Your task to perform on an android device: uninstall "eBay: The shopping marketplace" Image 0: 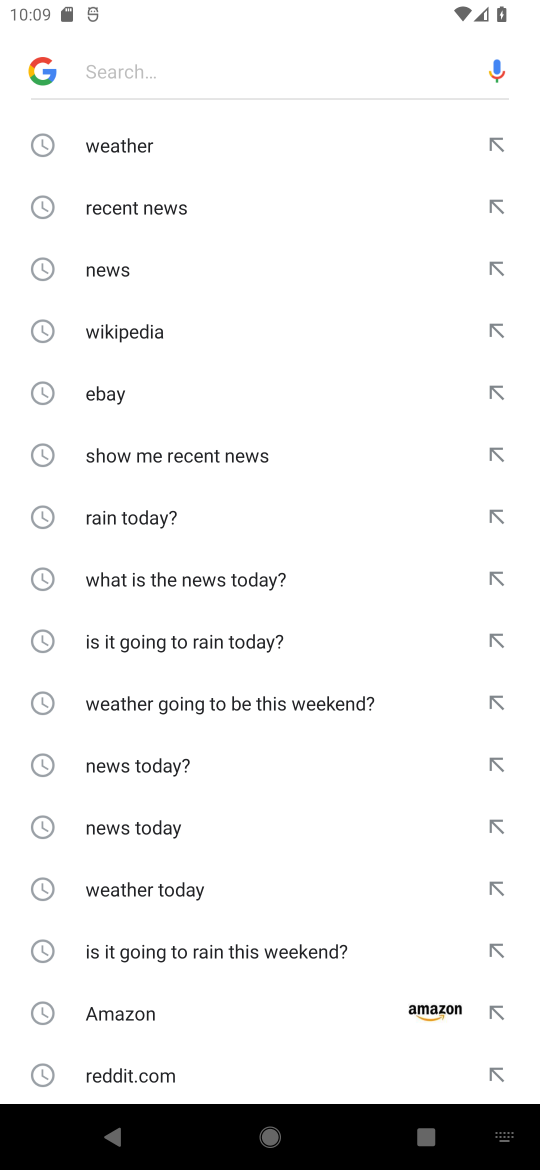
Step 0: press back button
Your task to perform on an android device: uninstall "eBay: The shopping marketplace" Image 1: 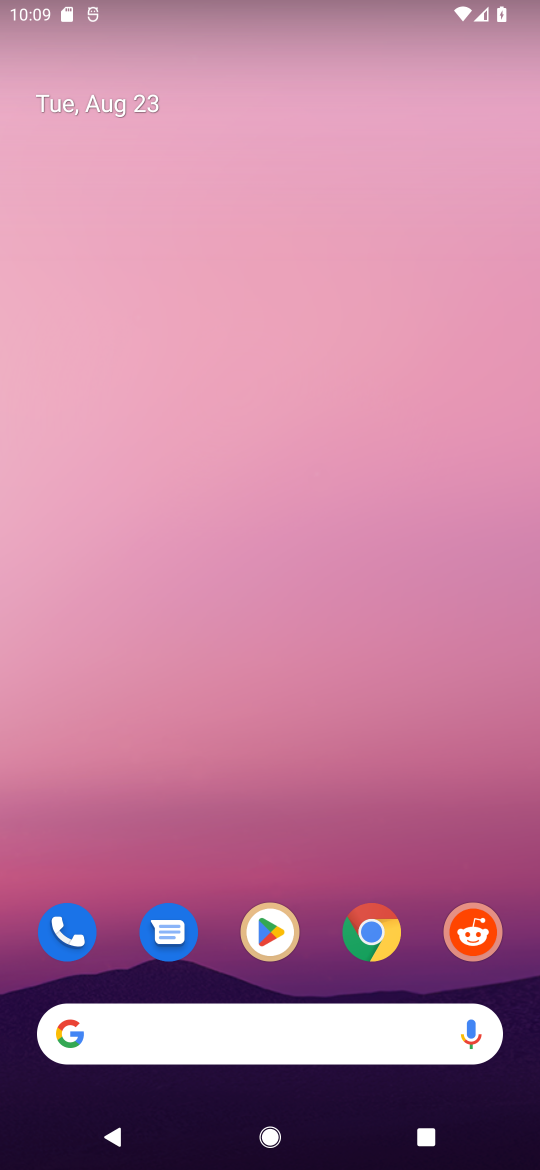
Step 1: click (280, 924)
Your task to perform on an android device: uninstall "eBay: The shopping marketplace" Image 2: 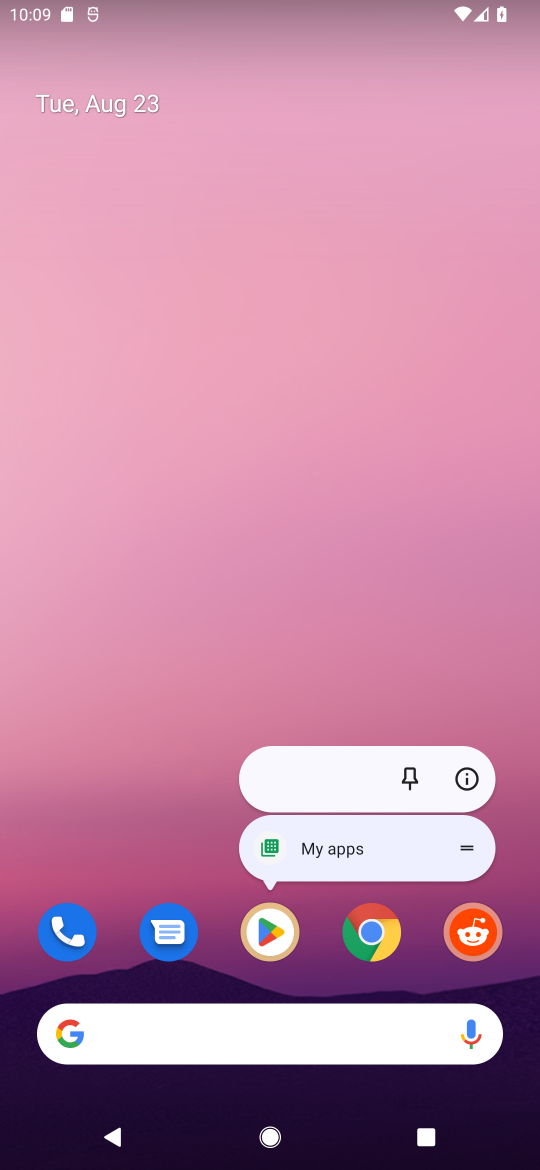
Step 2: click (246, 932)
Your task to perform on an android device: uninstall "eBay: The shopping marketplace" Image 3: 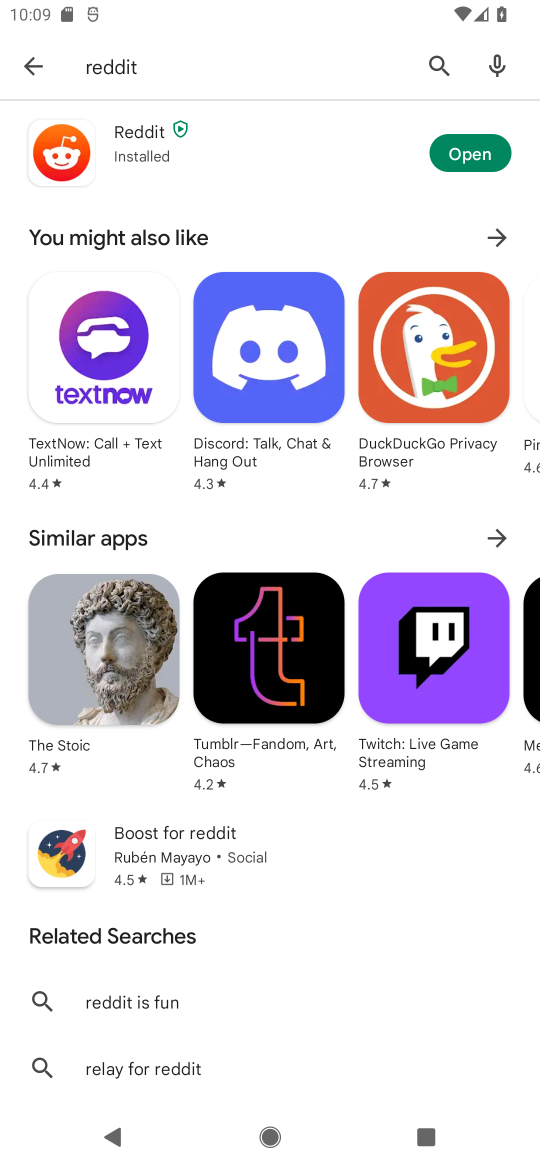
Step 3: click (448, 56)
Your task to perform on an android device: uninstall "eBay: The shopping marketplace" Image 4: 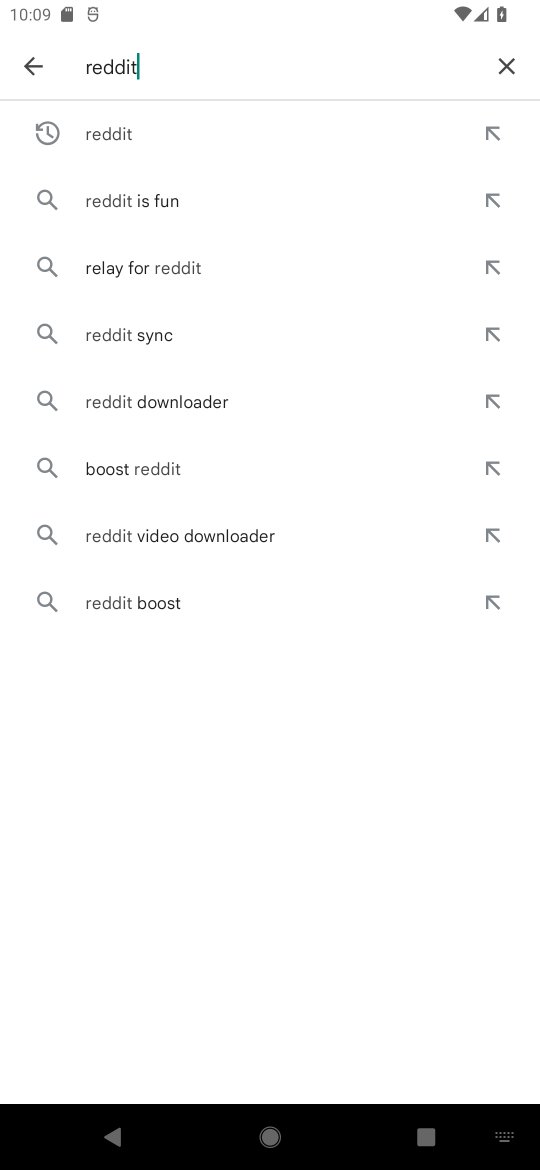
Step 4: click (515, 69)
Your task to perform on an android device: uninstall "eBay: The shopping marketplace" Image 5: 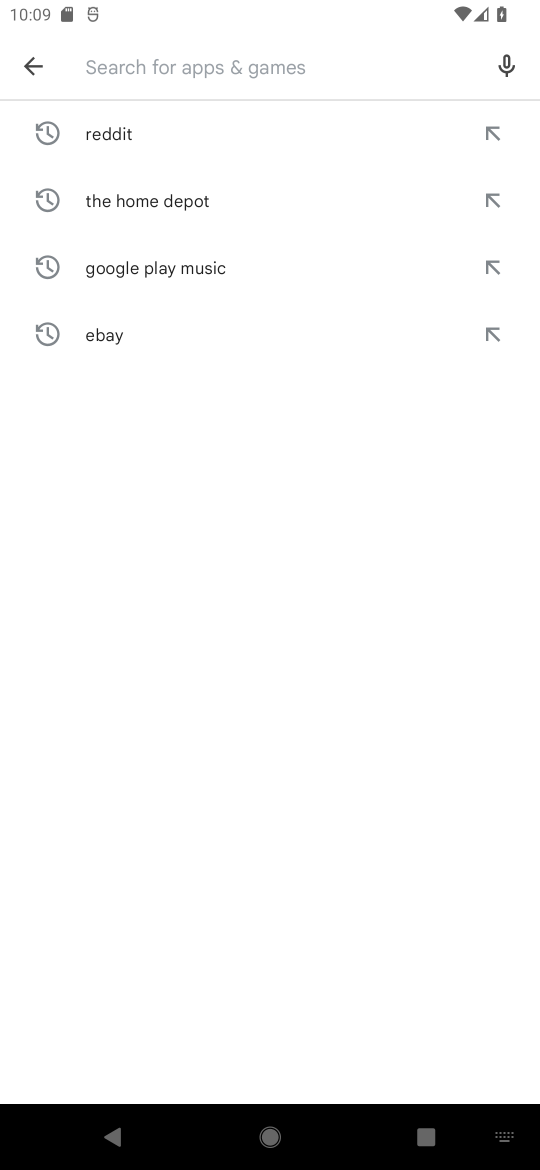
Step 5: click (177, 60)
Your task to perform on an android device: uninstall "eBay: The shopping marketplace" Image 6: 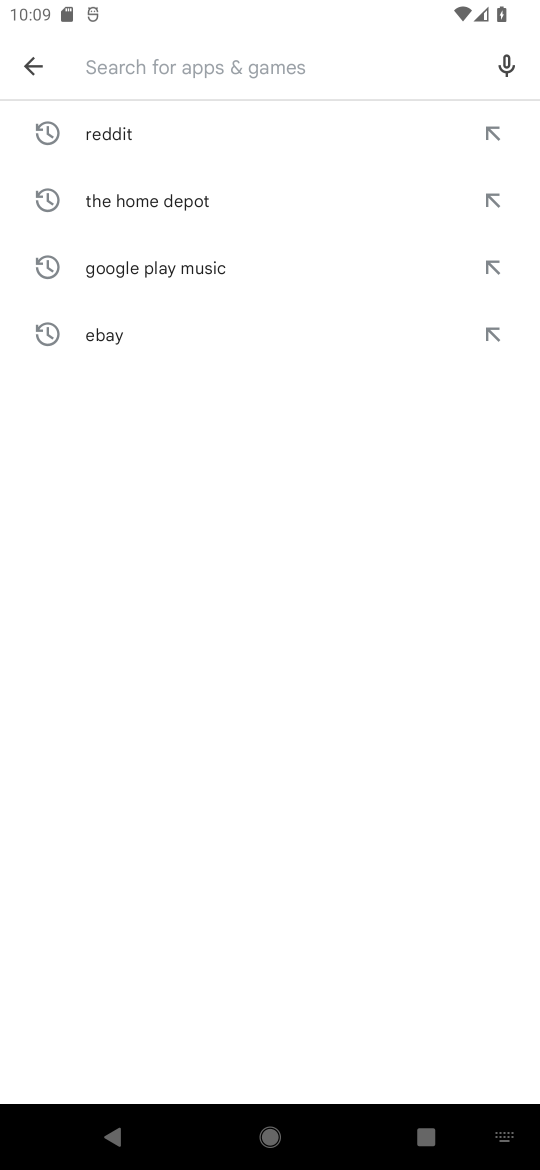
Step 6: type "ebay"
Your task to perform on an android device: uninstall "eBay: The shopping marketplace" Image 7: 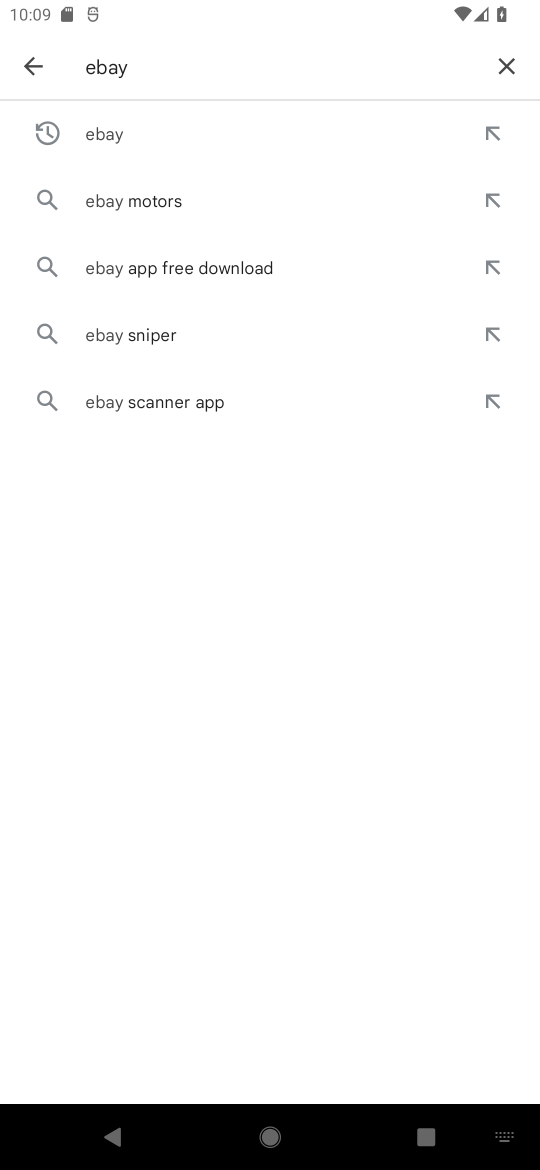
Step 7: click (172, 135)
Your task to perform on an android device: uninstall "eBay: The shopping marketplace" Image 8: 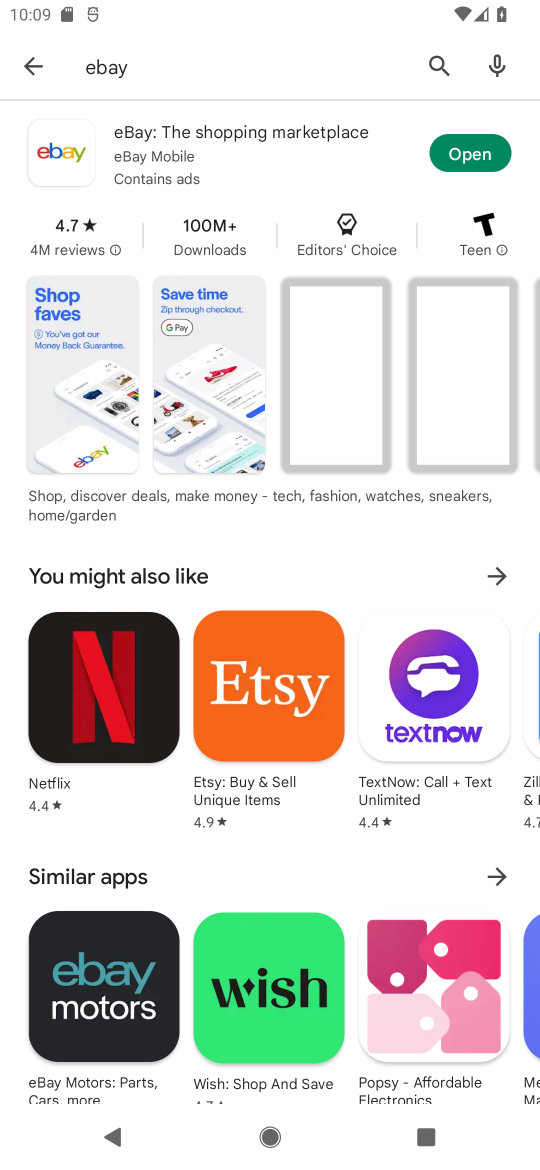
Step 8: click (213, 144)
Your task to perform on an android device: uninstall "eBay: The shopping marketplace" Image 9: 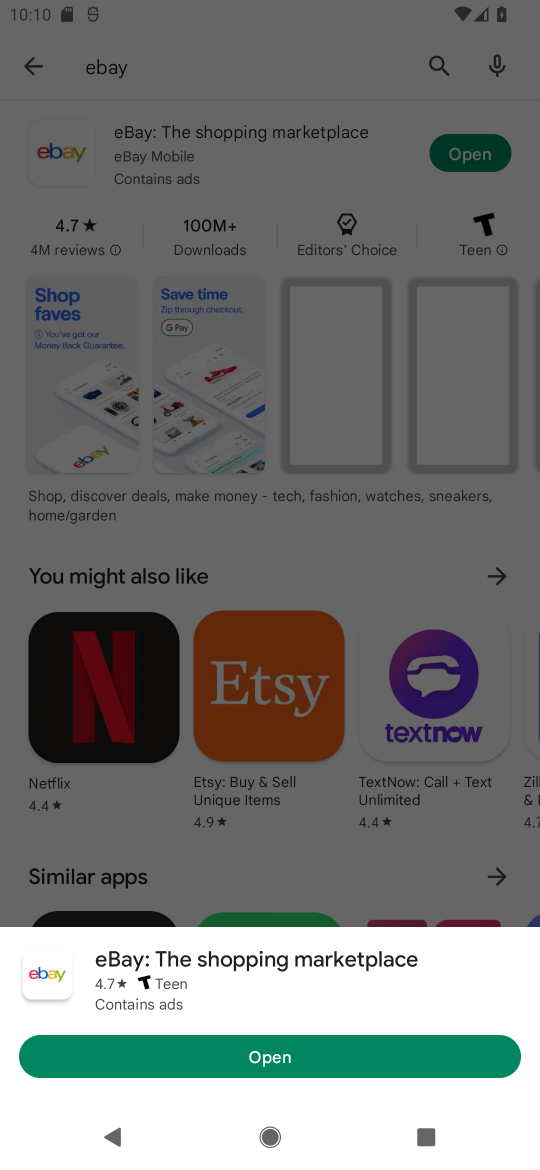
Step 9: click (228, 189)
Your task to perform on an android device: uninstall "eBay: The shopping marketplace" Image 10: 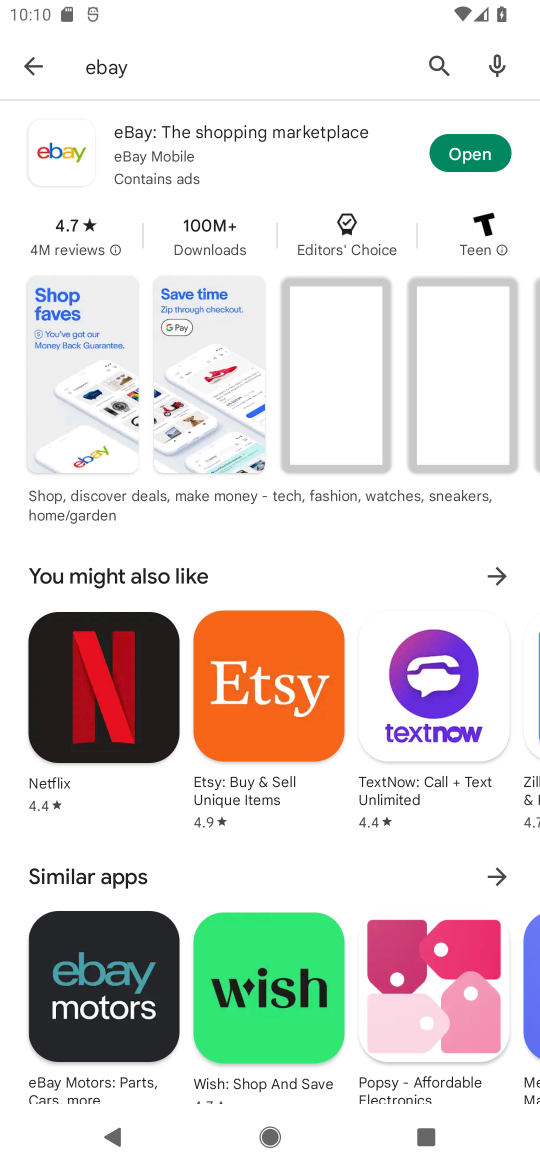
Step 10: click (150, 142)
Your task to perform on an android device: uninstall "eBay: The shopping marketplace" Image 11: 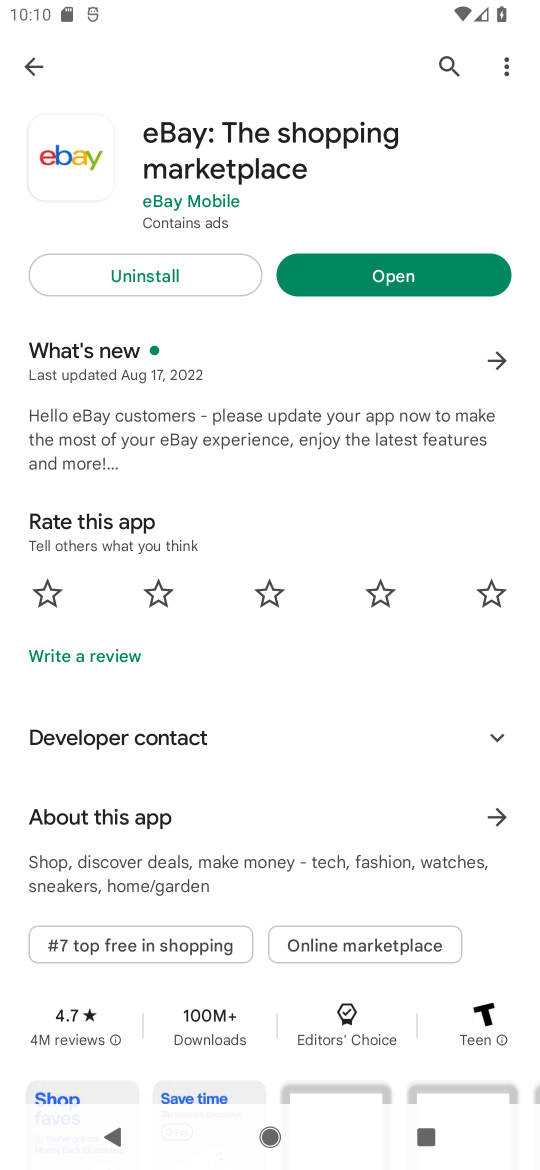
Step 11: click (141, 267)
Your task to perform on an android device: uninstall "eBay: The shopping marketplace" Image 12: 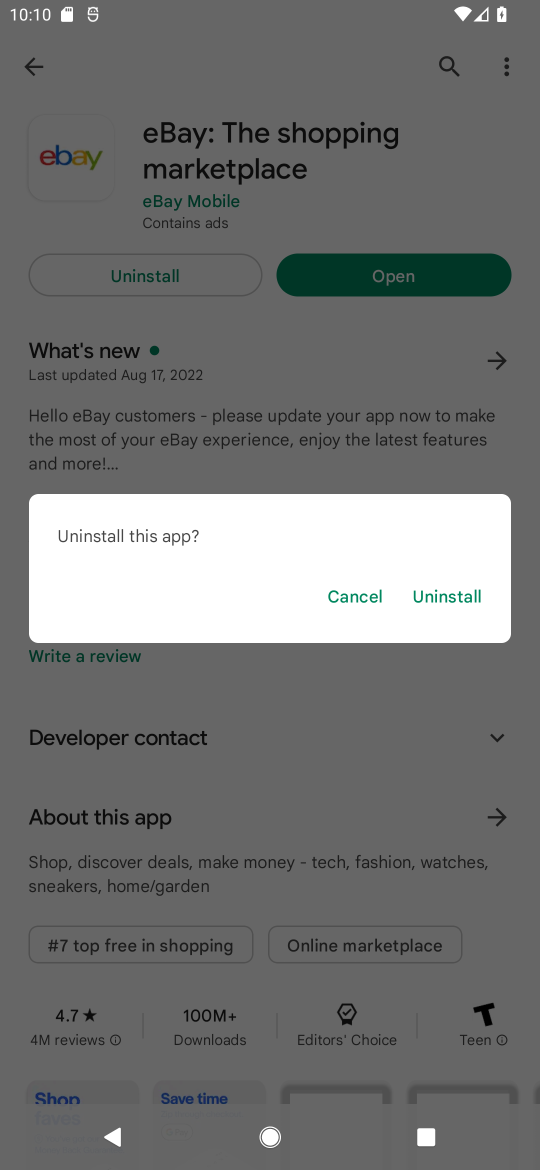
Step 12: click (458, 605)
Your task to perform on an android device: uninstall "eBay: The shopping marketplace" Image 13: 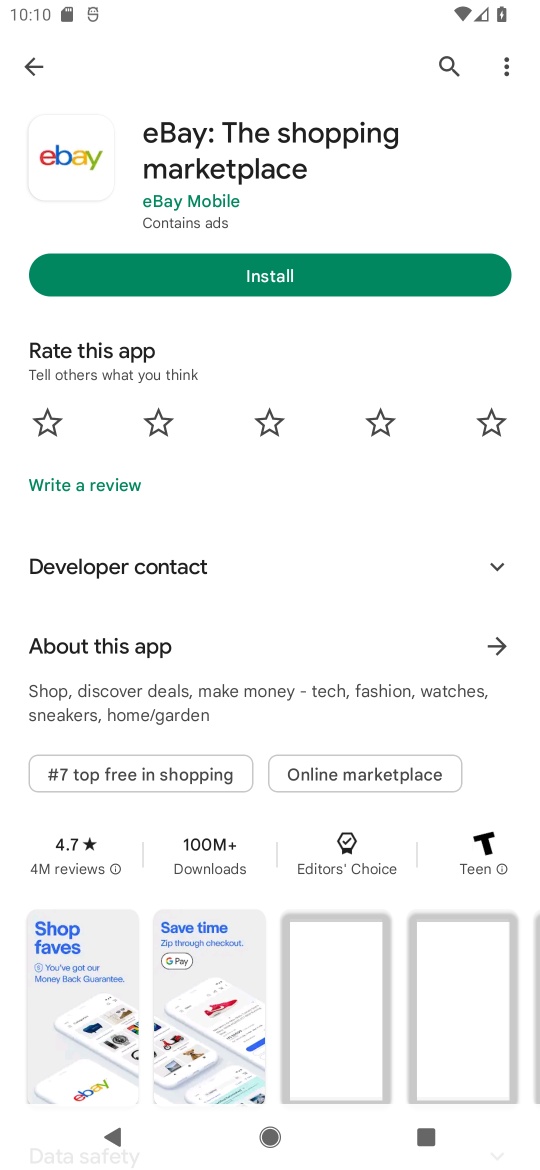
Step 13: task complete